Your task to perform on an android device: Search for sushi restaurants on Maps Image 0: 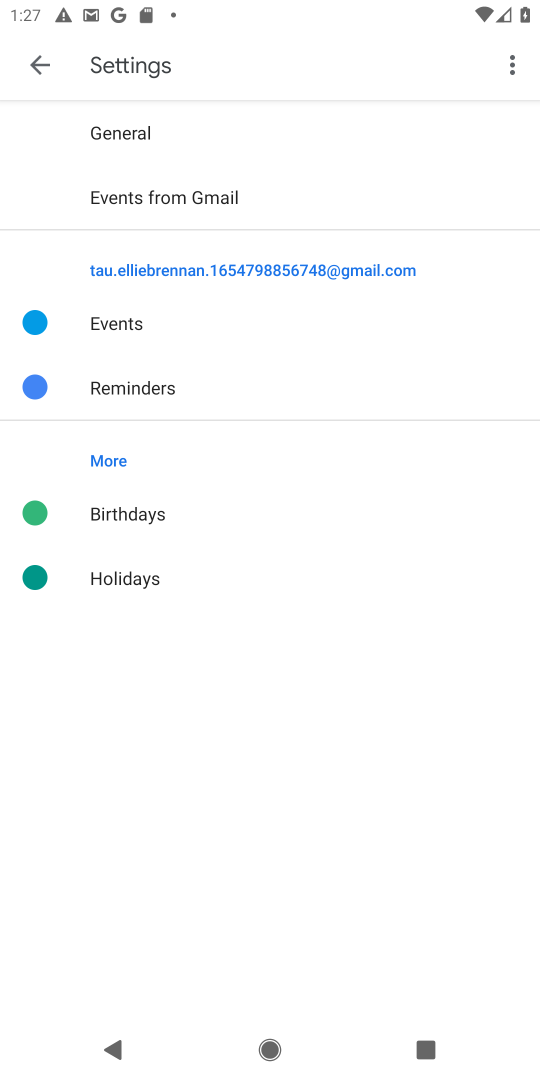
Step 0: press home button
Your task to perform on an android device: Search for sushi restaurants on Maps Image 1: 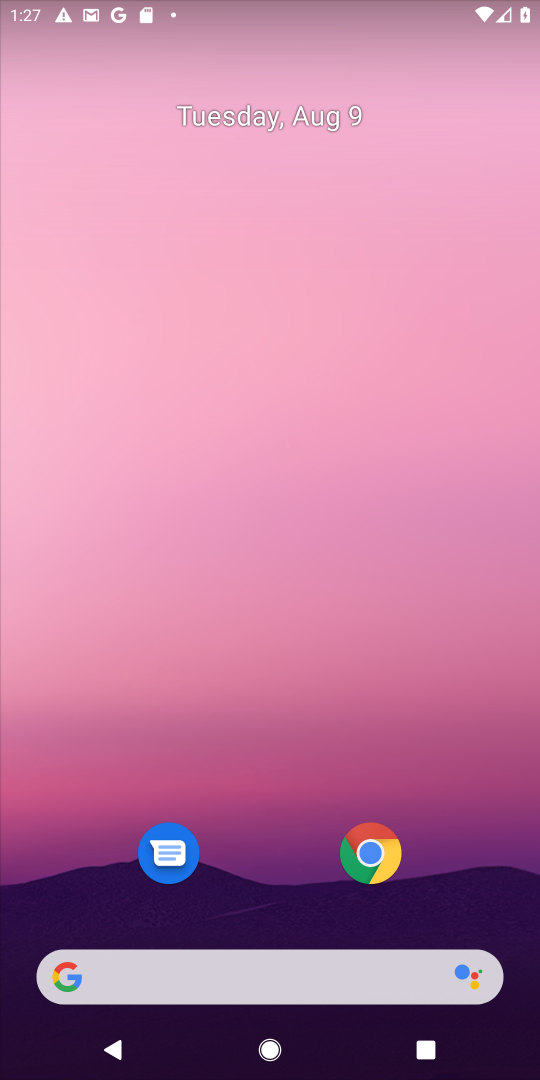
Step 1: drag from (278, 831) to (293, 32)
Your task to perform on an android device: Search for sushi restaurants on Maps Image 2: 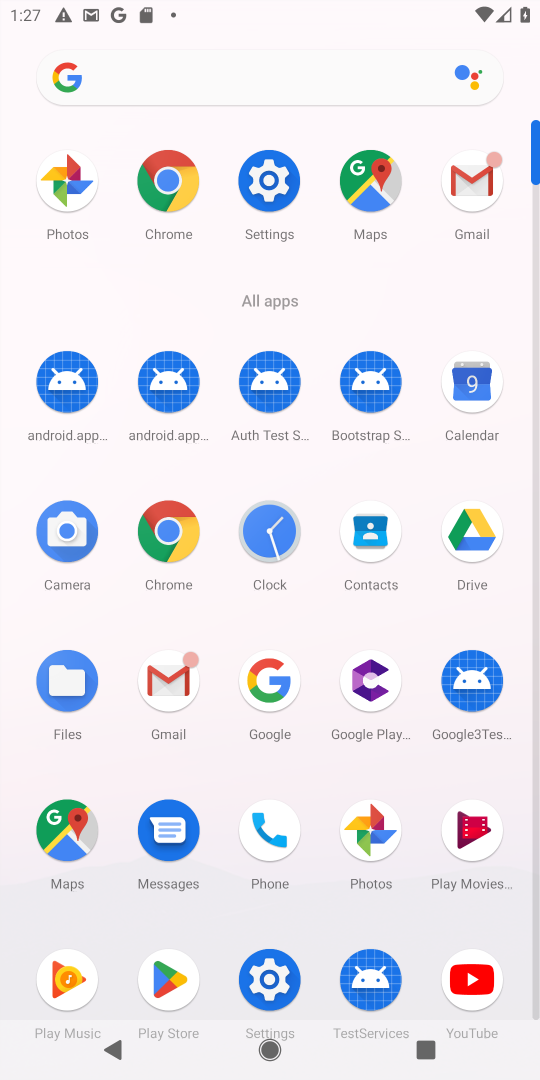
Step 2: click (364, 175)
Your task to perform on an android device: Search for sushi restaurants on Maps Image 3: 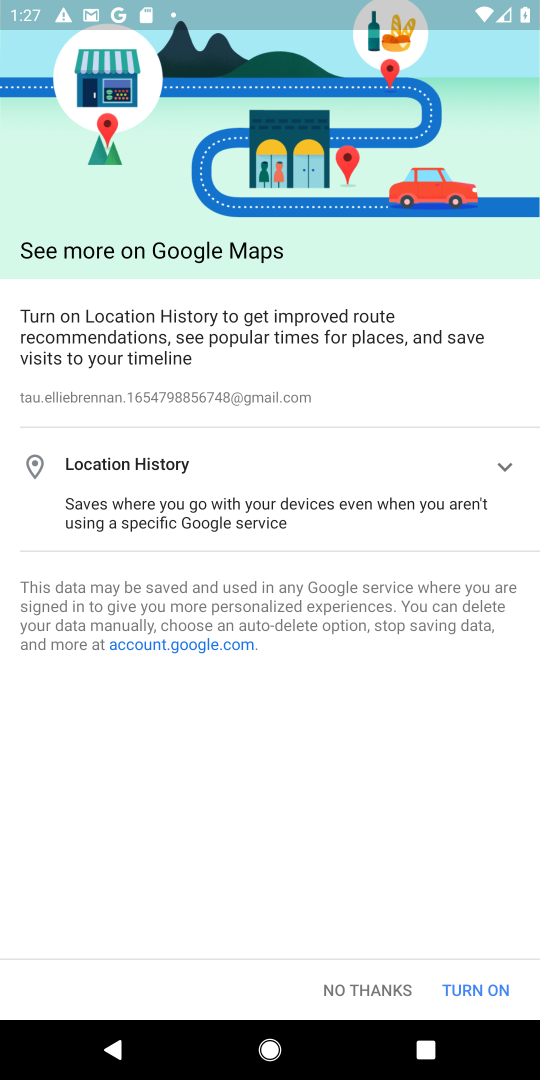
Step 3: click (490, 987)
Your task to perform on an android device: Search for sushi restaurants on Maps Image 4: 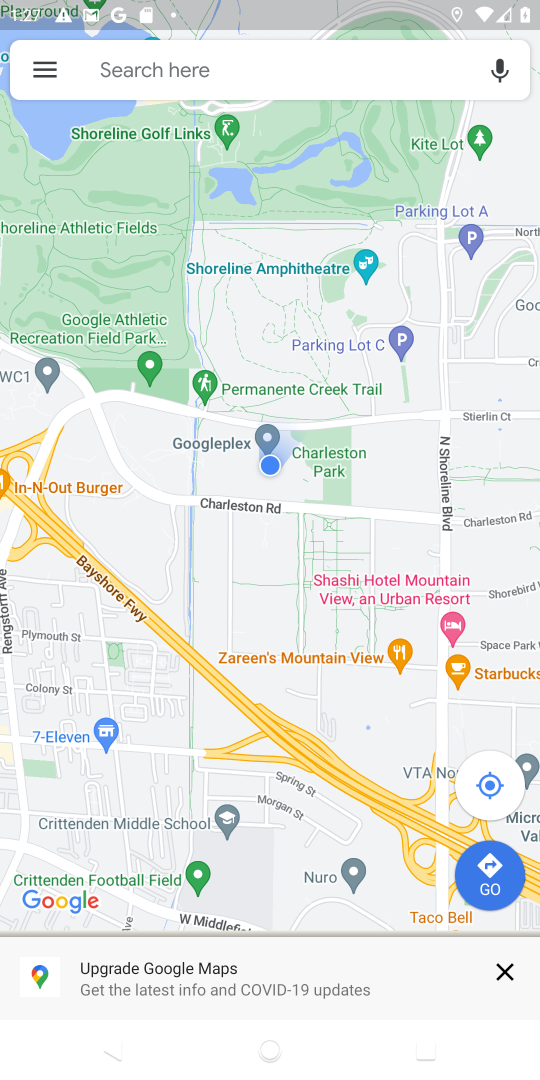
Step 4: click (151, 64)
Your task to perform on an android device: Search for sushi restaurants on Maps Image 5: 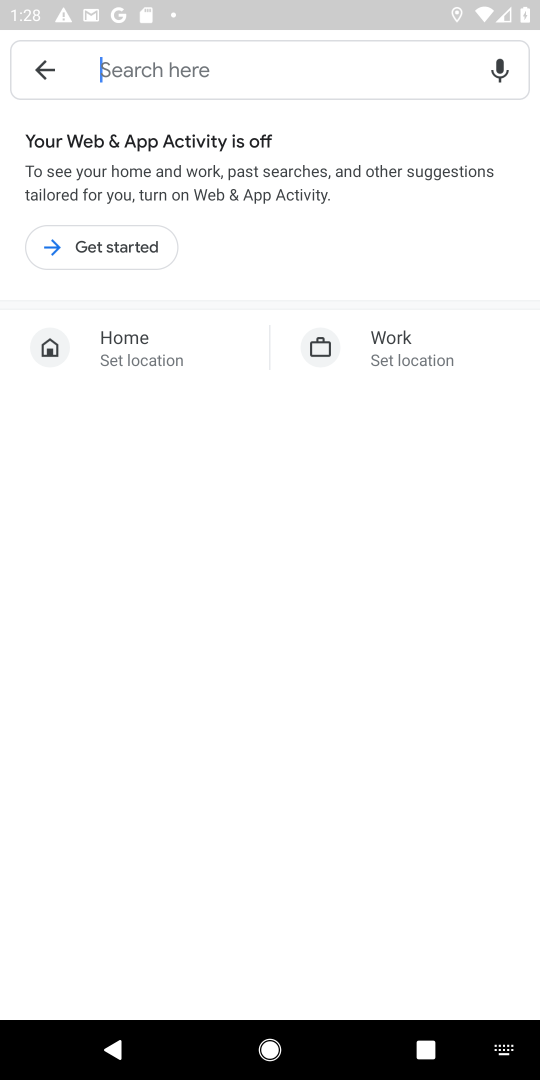
Step 5: type "sushi"
Your task to perform on an android device: Search for sushi restaurants on Maps Image 6: 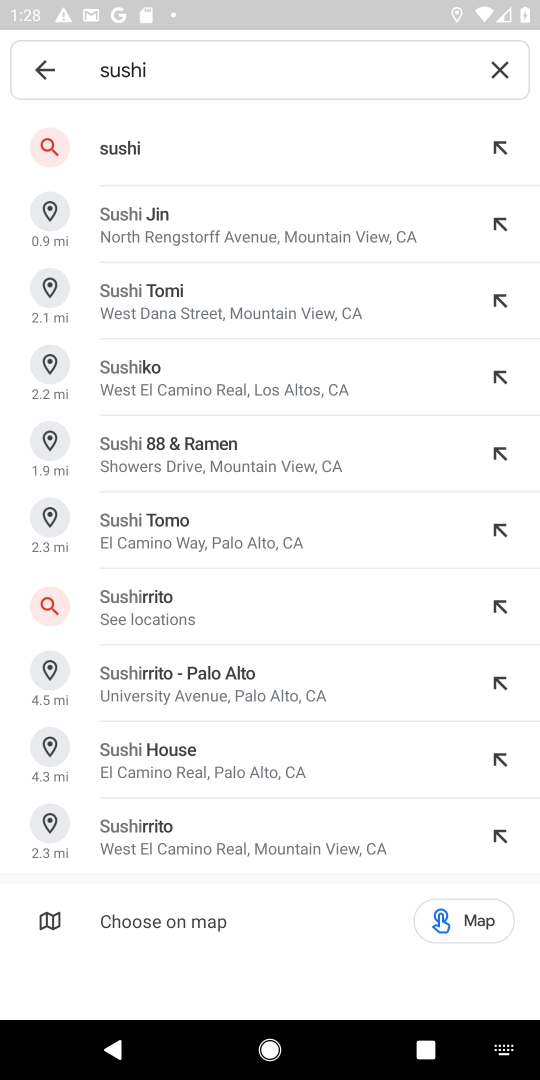
Step 6: type " "
Your task to perform on an android device: Search for sushi restaurants on Maps Image 7: 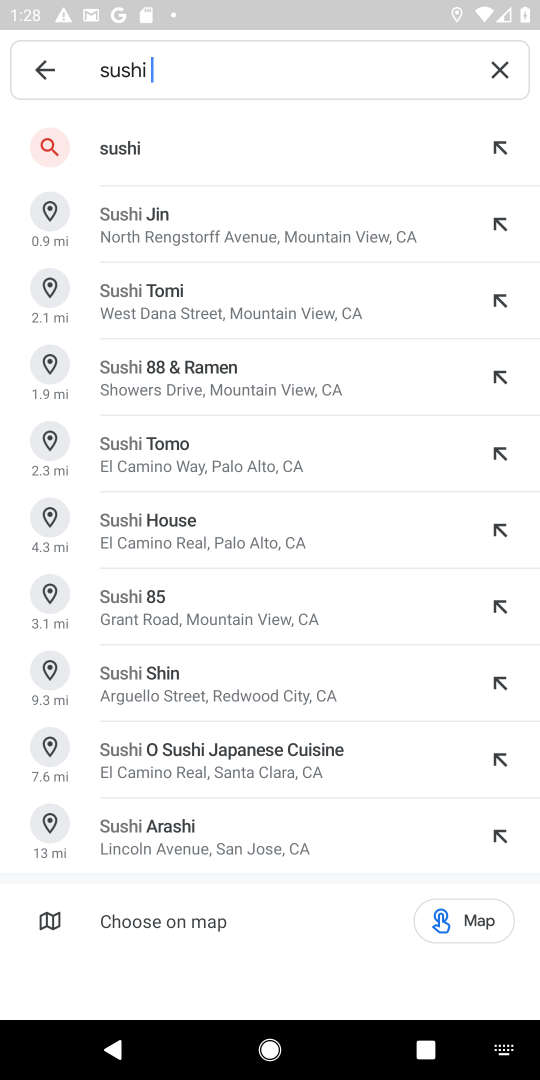
Step 7: type "restaurant"
Your task to perform on an android device: Search for sushi restaurants on Maps Image 8: 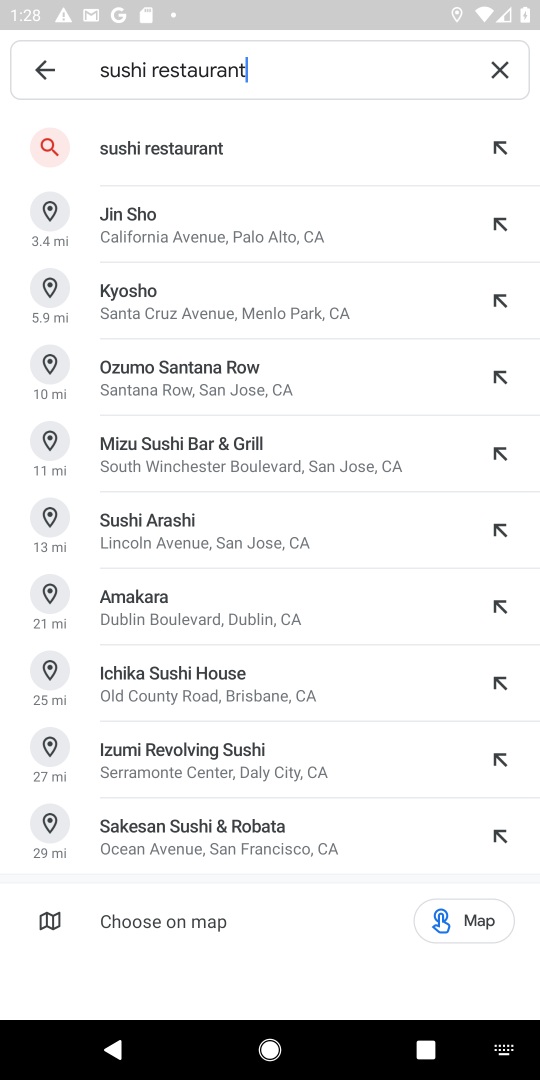
Step 8: click (237, 145)
Your task to perform on an android device: Search for sushi restaurants on Maps Image 9: 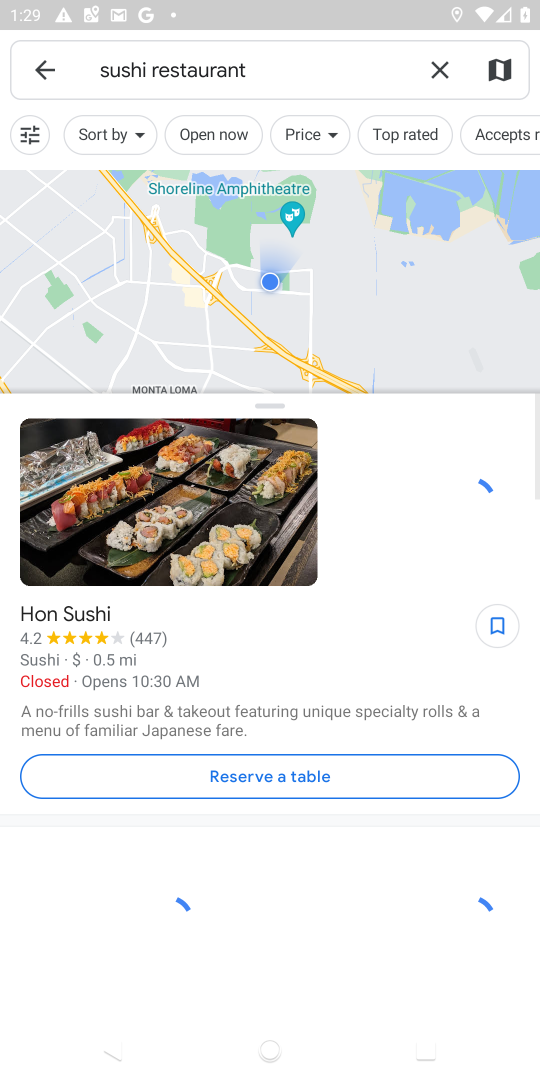
Step 9: task complete